Your task to perform on an android device: change text size in settings app Image 0: 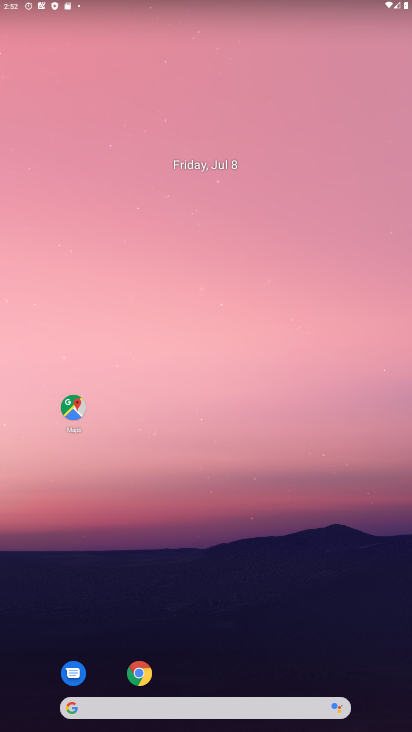
Step 0: drag from (99, 664) to (110, 406)
Your task to perform on an android device: change text size in settings app Image 1: 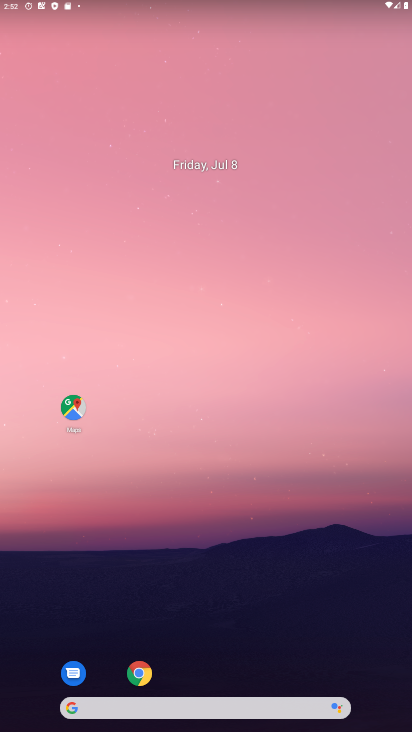
Step 1: drag from (121, 711) to (132, 312)
Your task to perform on an android device: change text size in settings app Image 2: 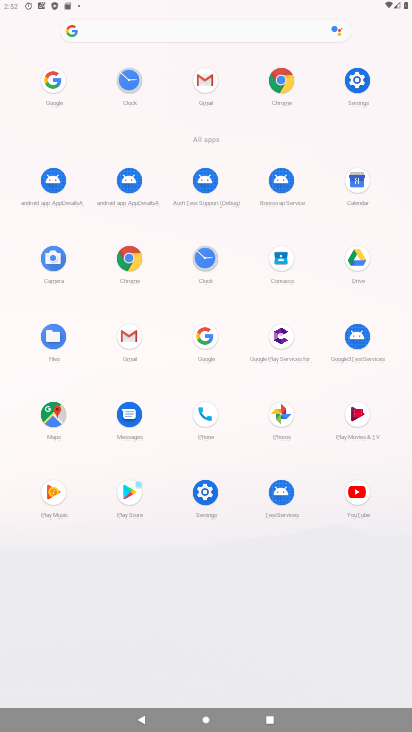
Step 2: click (210, 509)
Your task to perform on an android device: change text size in settings app Image 3: 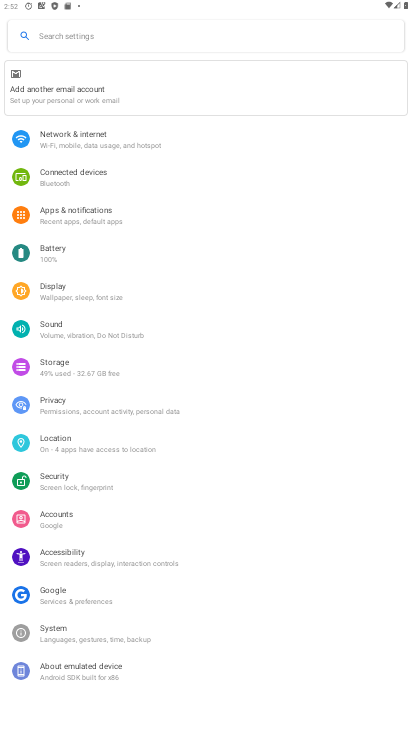
Step 3: click (94, 558)
Your task to perform on an android device: change text size in settings app Image 4: 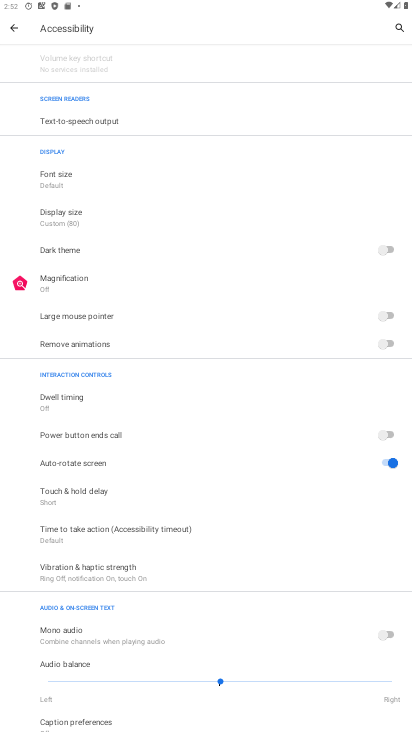
Step 4: click (42, 176)
Your task to perform on an android device: change text size in settings app Image 5: 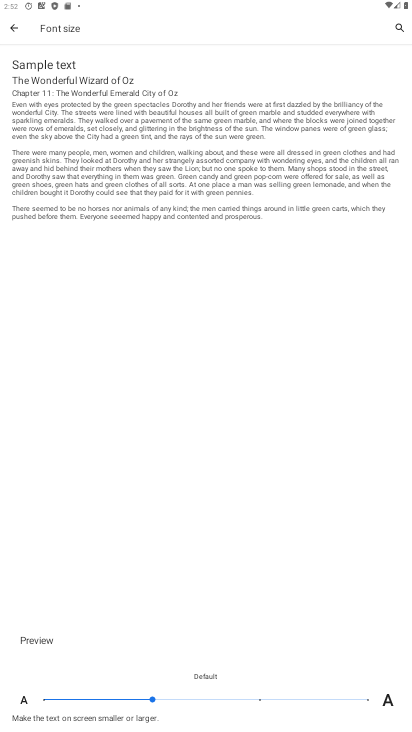
Step 5: click (246, 704)
Your task to perform on an android device: change text size in settings app Image 6: 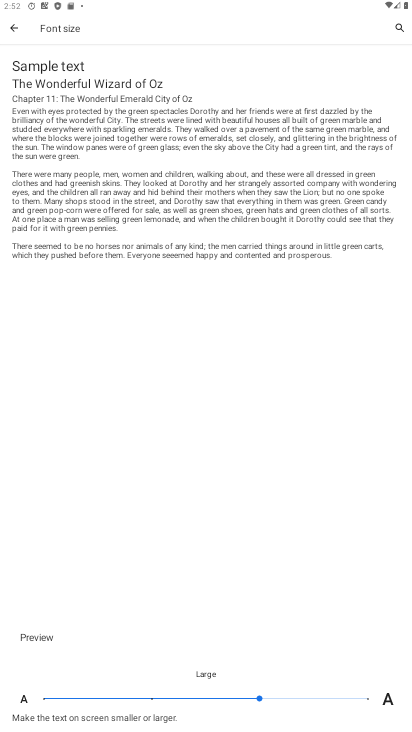
Step 6: task complete